Your task to perform on an android device: Open Amazon Image 0: 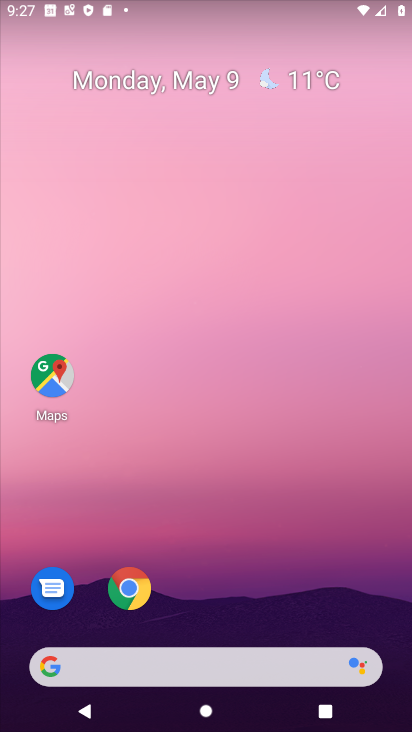
Step 0: drag from (165, 665) to (338, 63)
Your task to perform on an android device: Open Amazon Image 1: 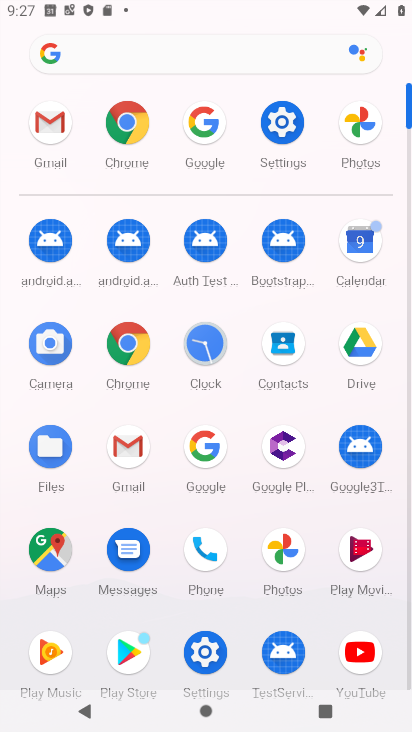
Step 1: click (138, 125)
Your task to perform on an android device: Open Amazon Image 2: 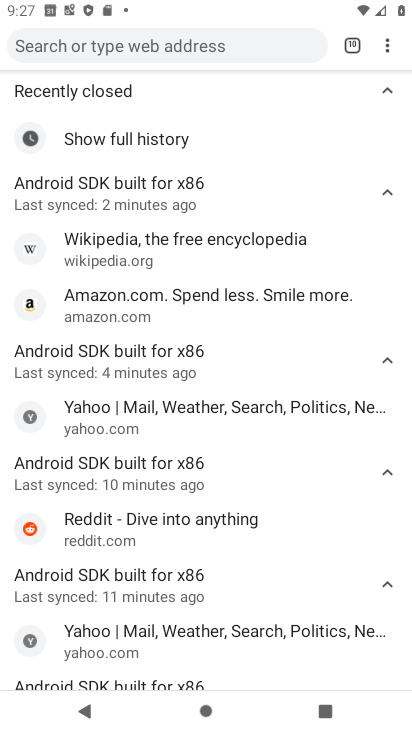
Step 2: drag from (384, 45) to (309, 87)
Your task to perform on an android device: Open Amazon Image 3: 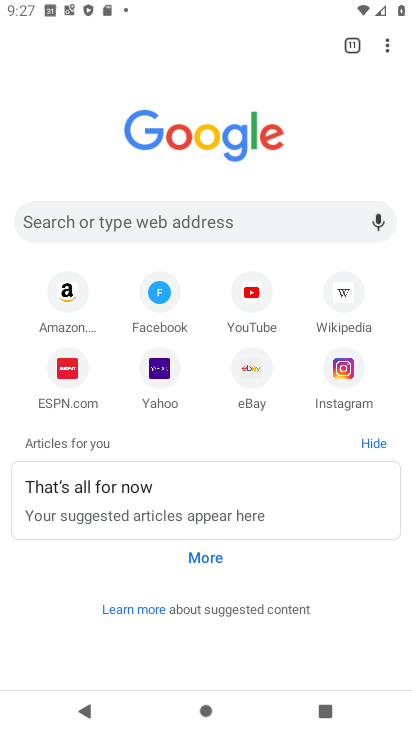
Step 3: click (75, 296)
Your task to perform on an android device: Open Amazon Image 4: 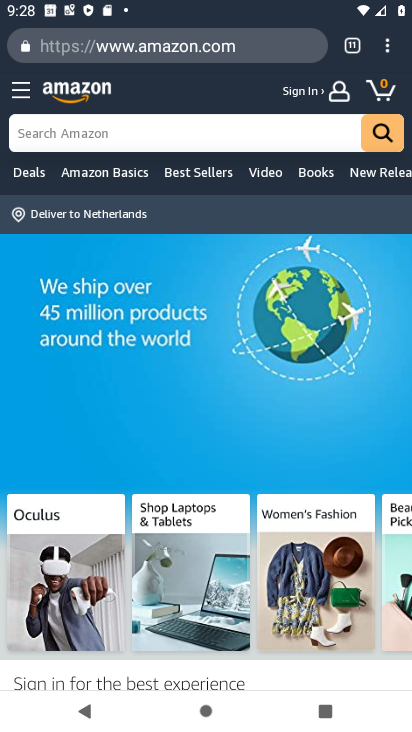
Step 4: task complete